Your task to perform on an android device: Play the last video I watched on Youtube Image 0: 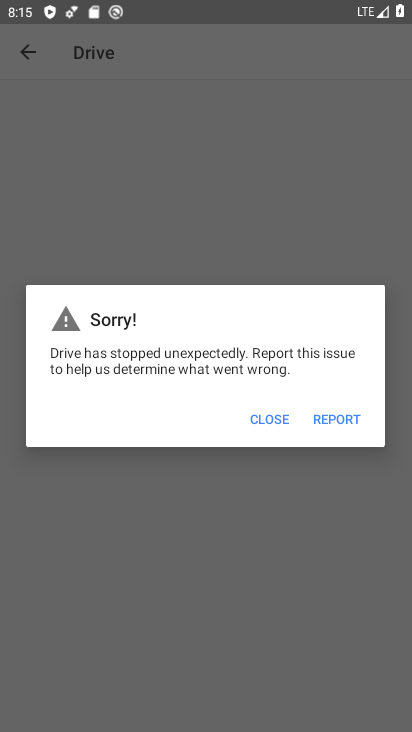
Step 0: press home button
Your task to perform on an android device: Play the last video I watched on Youtube Image 1: 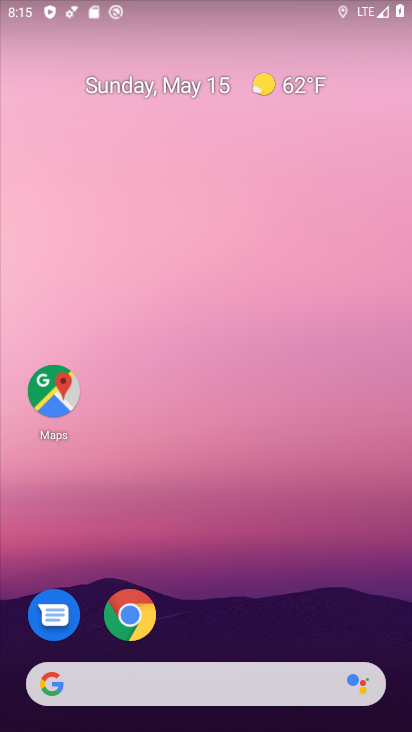
Step 1: drag from (274, 120) to (302, 18)
Your task to perform on an android device: Play the last video I watched on Youtube Image 2: 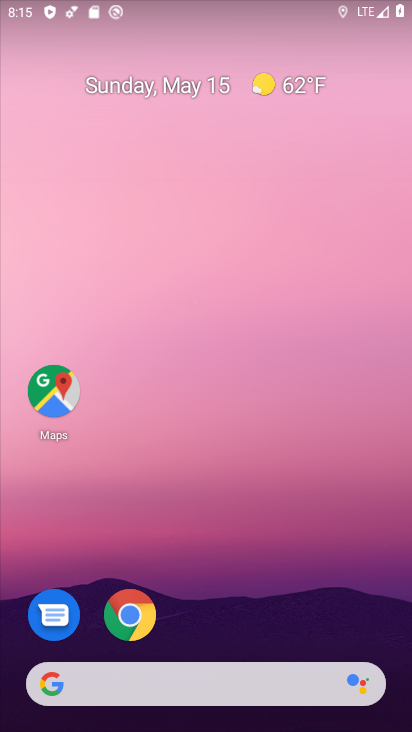
Step 2: drag from (174, 620) to (230, 8)
Your task to perform on an android device: Play the last video I watched on Youtube Image 3: 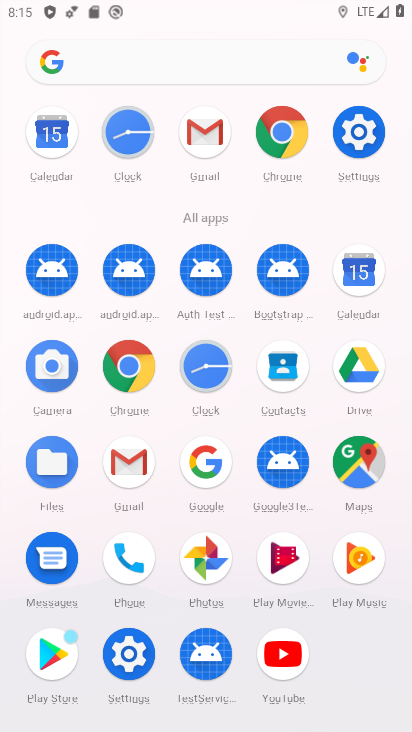
Step 3: click (284, 643)
Your task to perform on an android device: Play the last video I watched on Youtube Image 4: 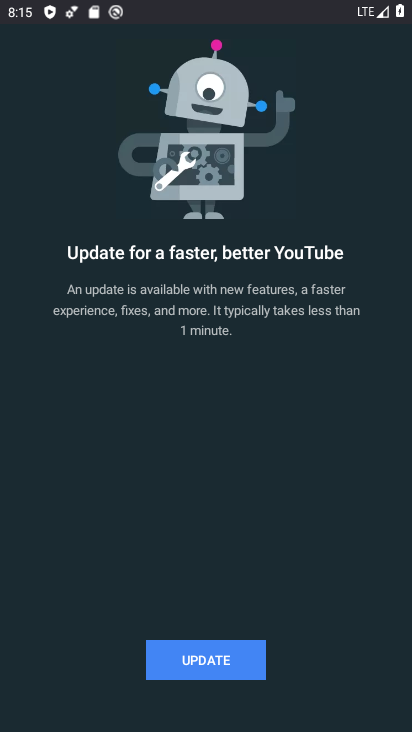
Step 4: click (212, 658)
Your task to perform on an android device: Play the last video I watched on Youtube Image 5: 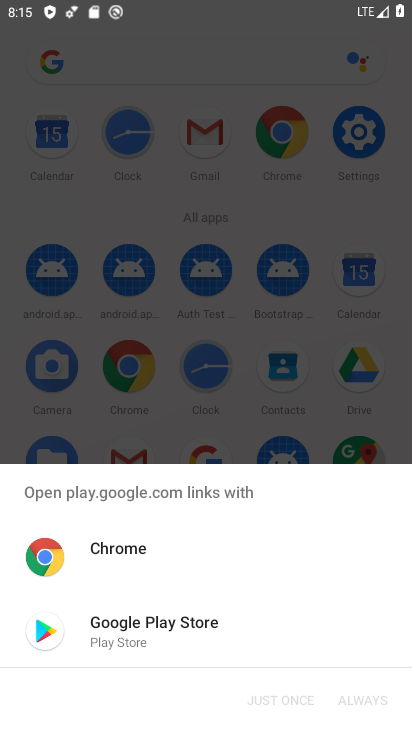
Step 5: click (318, 636)
Your task to perform on an android device: Play the last video I watched on Youtube Image 6: 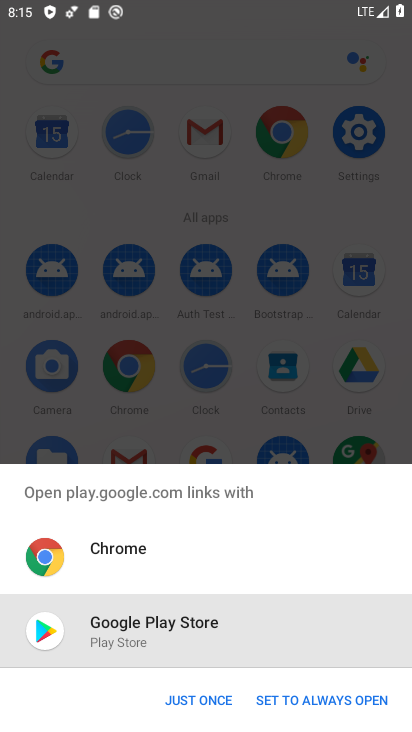
Step 6: click (208, 699)
Your task to perform on an android device: Play the last video I watched on Youtube Image 7: 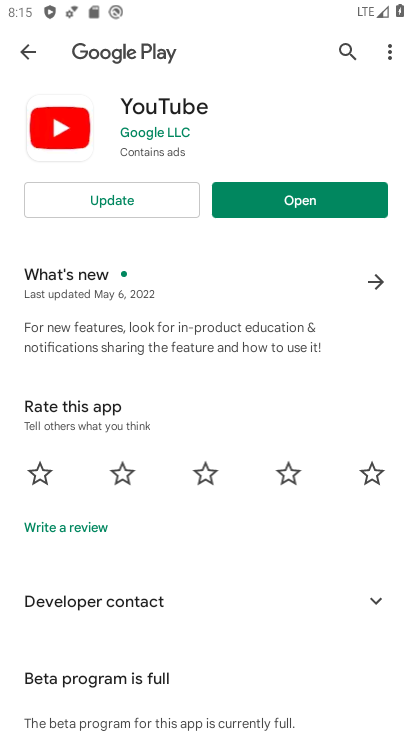
Step 7: click (146, 198)
Your task to perform on an android device: Play the last video I watched on Youtube Image 8: 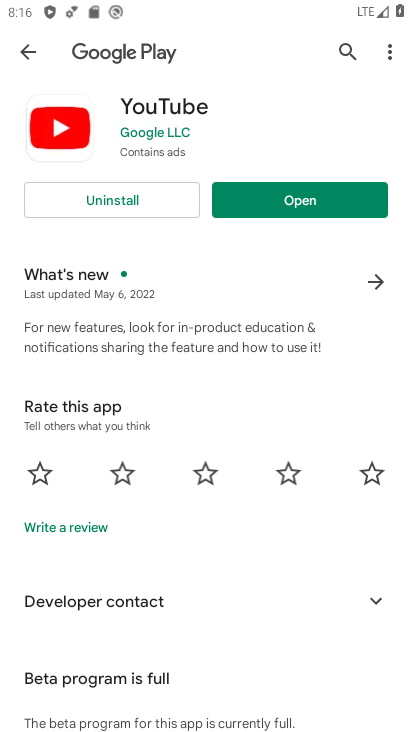
Step 8: click (270, 214)
Your task to perform on an android device: Play the last video I watched on Youtube Image 9: 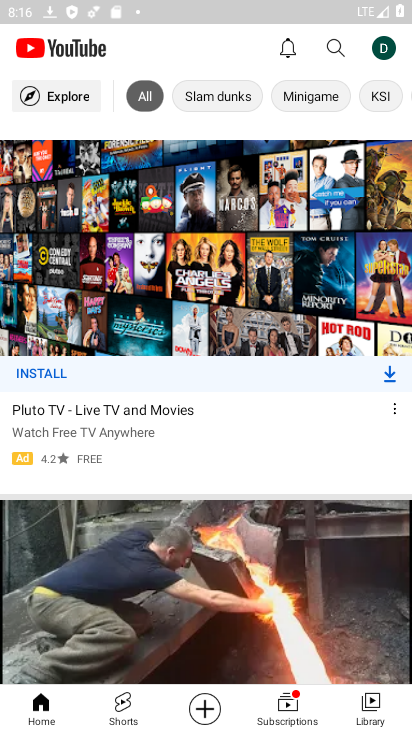
Step 9: click (363, 702)
Your task to perform on an android device: Play the last video I watched on Youtube Image 10: 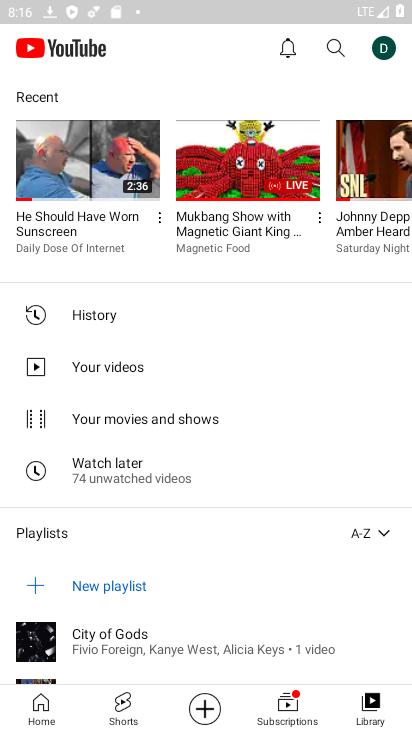
Step 10: click (68, 143)
Your task to perform on an android device: Play the last video I watched on Youtube Image 11: 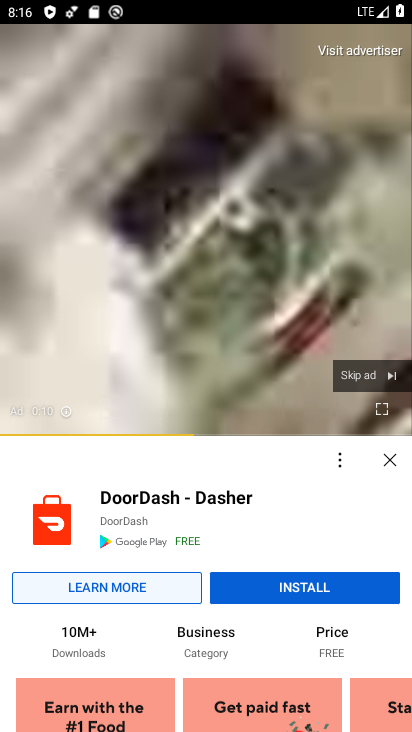
Step 11: click (349, 371)
Your task to perform on an android device: Play the last video I watched on Youtube Image 12: 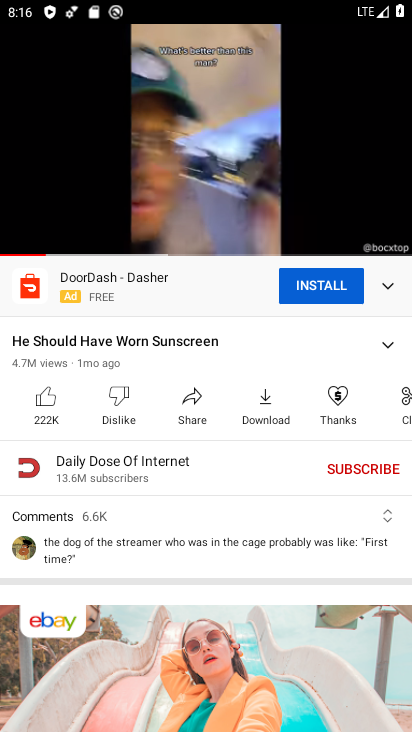
Step 12: task complete